Your task to perform on an android device: toggle pop-ups in chrome Image 0: 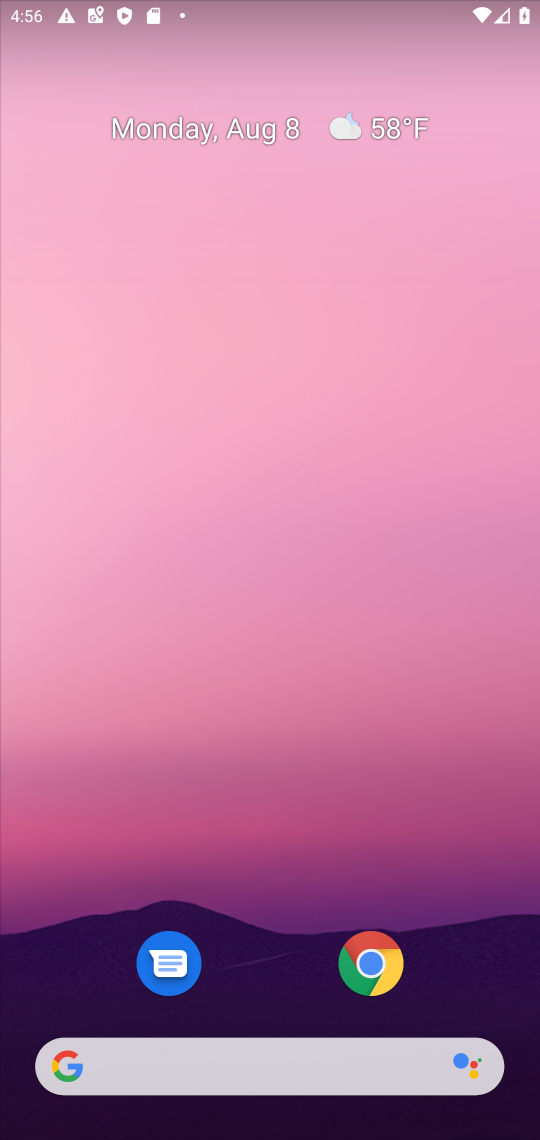
Step 0: click (382, 958)
Your task to perform on an android device: toggle pop-ups in chrome Image 1: 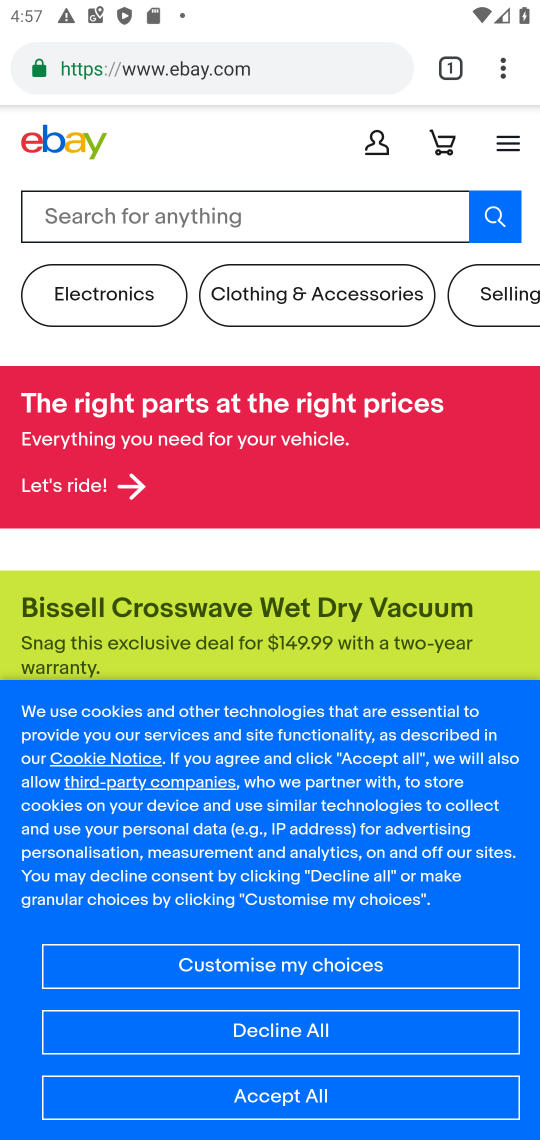
Step 1: click (485, 76)
Your task to perform on an android device: toggle pop-ups in chrome Image 2: 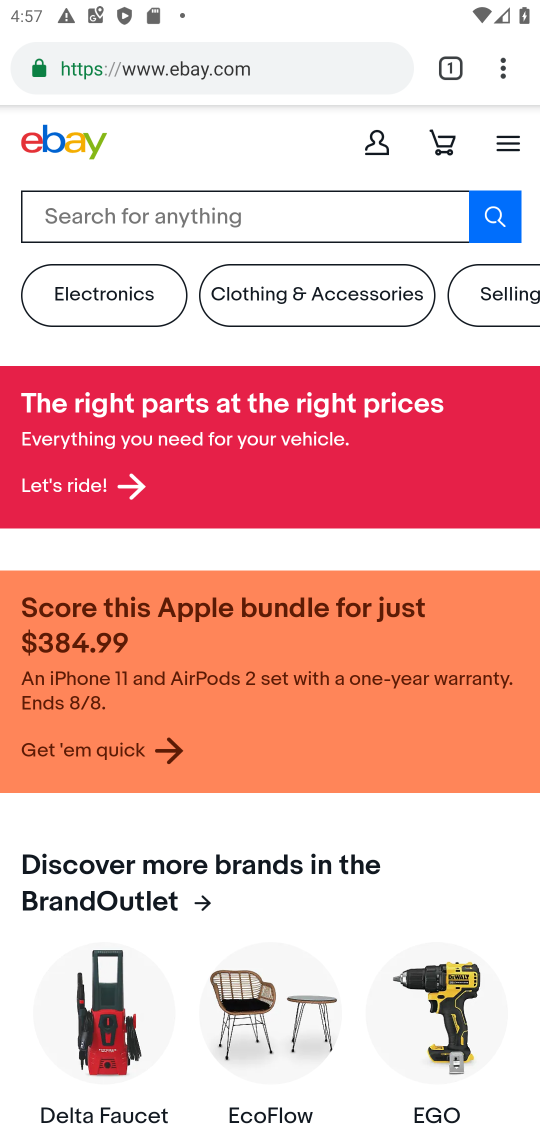
Step 2: click (496, 77)
Your task to perform on an android device: toggle pop-ups in chrome Image 3: 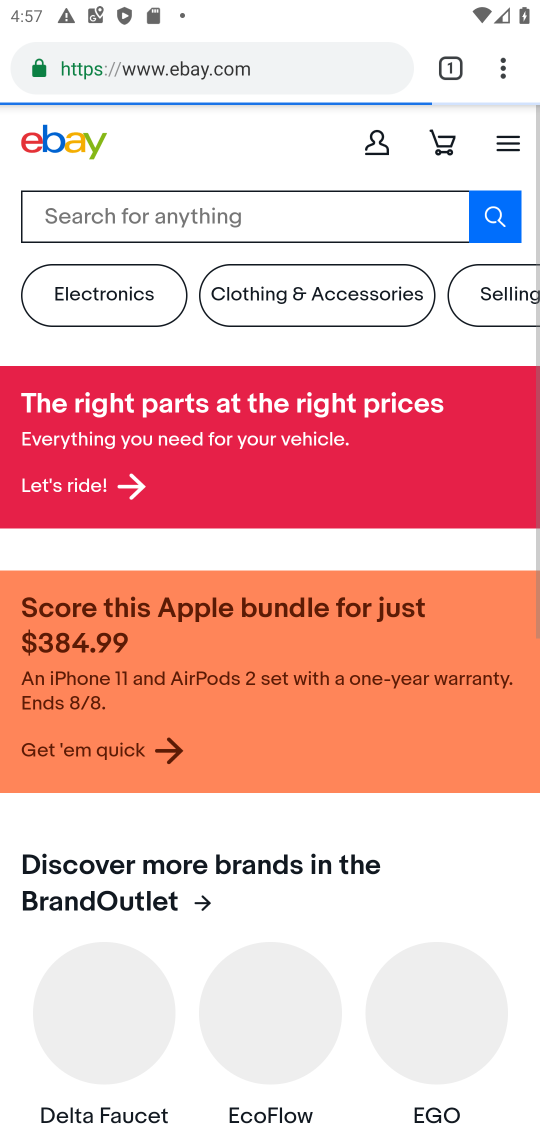
Step 3: click (521, 89)
Your task to perform on an android device: toggle pop-ups in chrome Image 4: 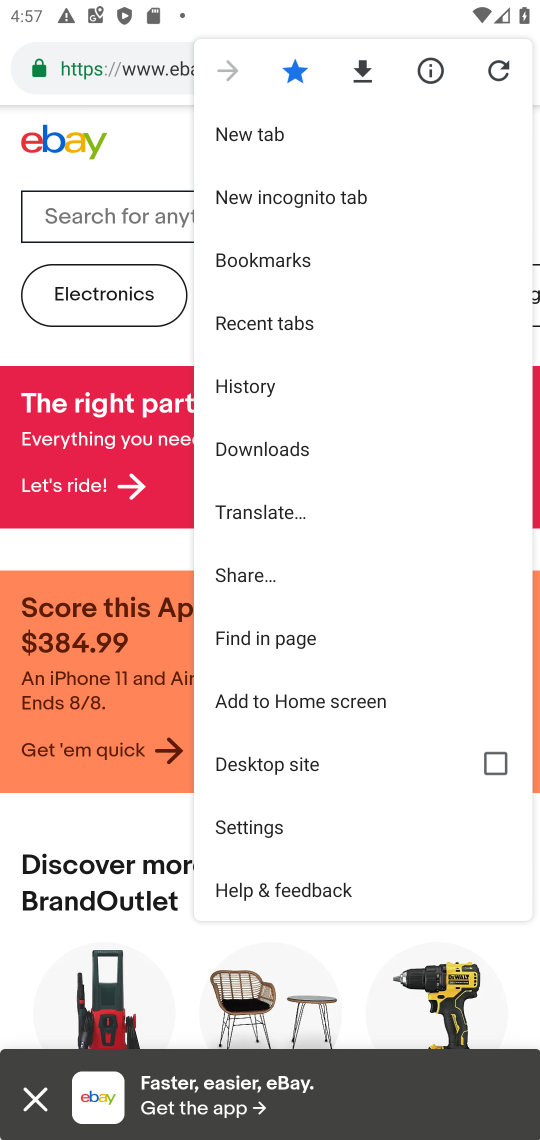
Step 4: click (289, 832)
Your task to perform on an android device: toggle pop-ups in chrome Image 5: 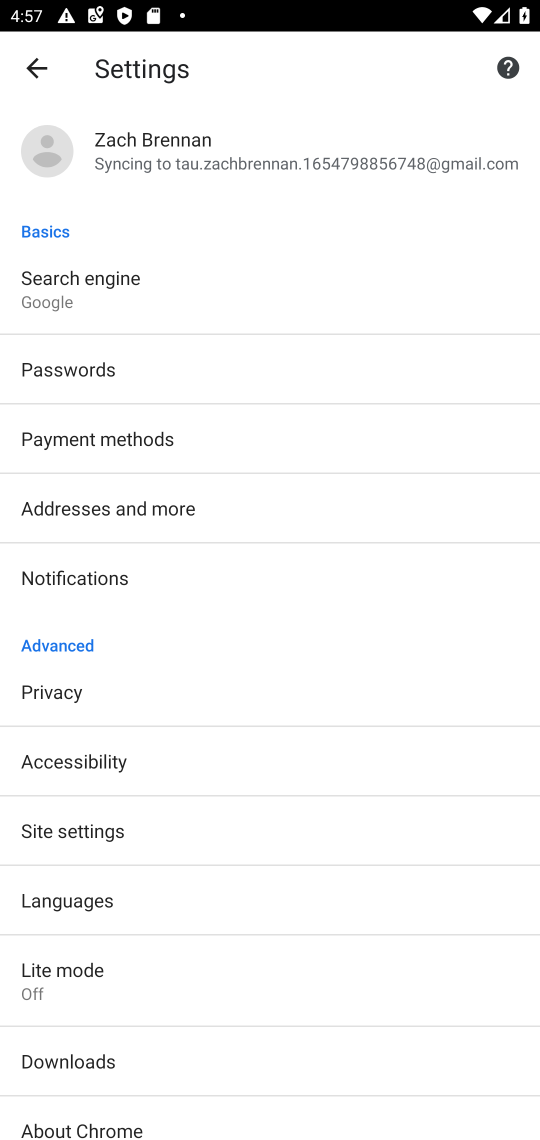
Step 5: click (155, 819)
Your task to perform on an android device: toggle pop-ups in chrome Image 6: 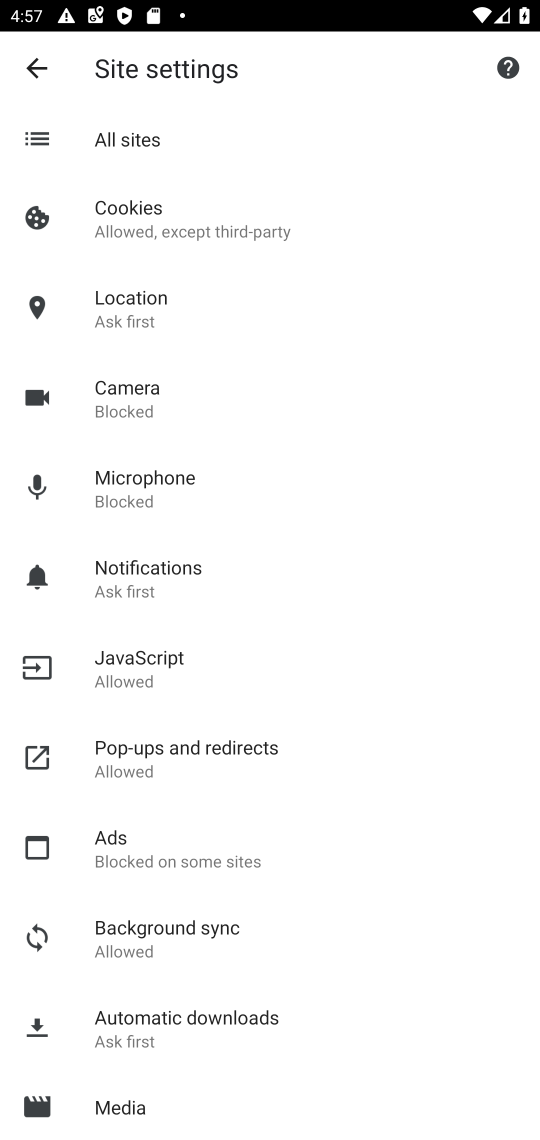
Step 6: click (235, 767)
Your task to perform on an android device: toggle pop-ups in chrome Image 7: 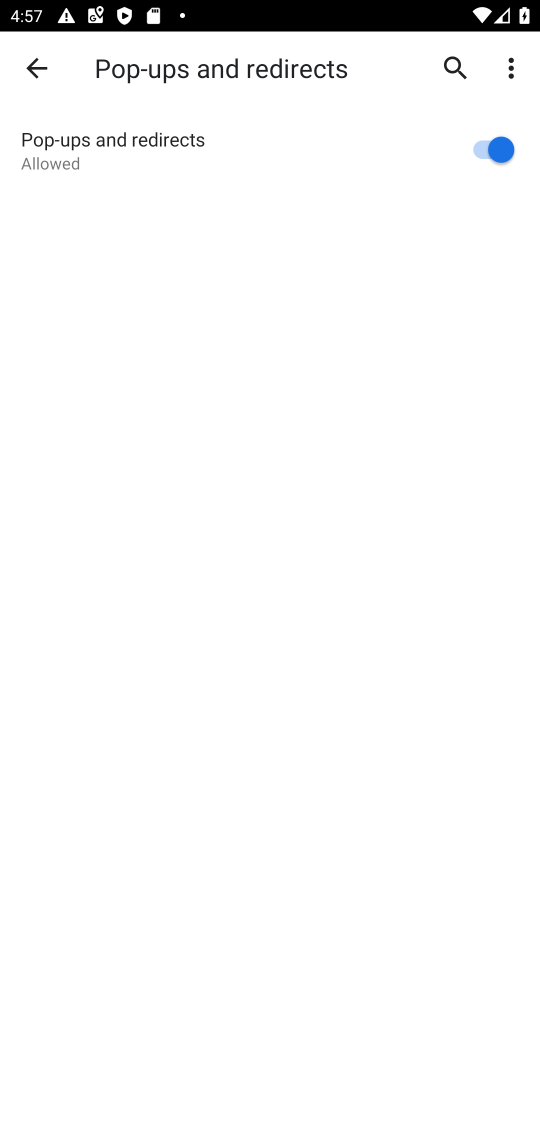
Step 7: click (491, 151)
Your task to perform on an android device: toggle pop-ups in chrome Image 8: 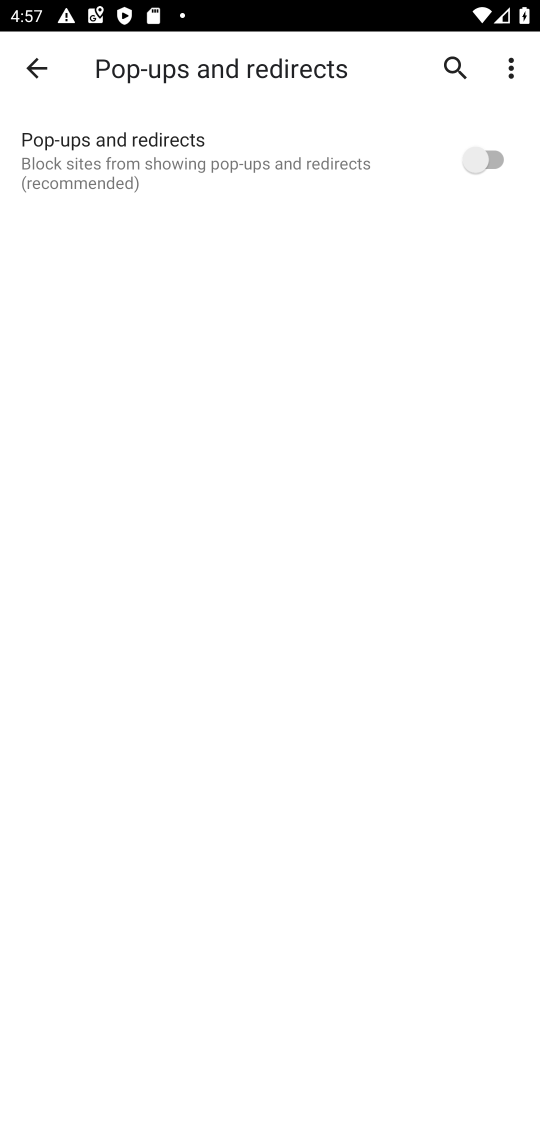
Step 8: task complete